Your task to perform on an android device: change your default location settings in chrome Image 0: 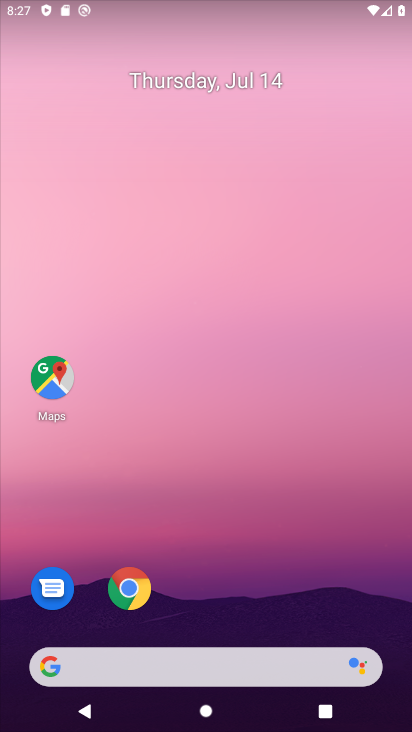
Step 0: click (127, 593)
Your task to perform on an android device: change your default location settings in chrome Image 1: 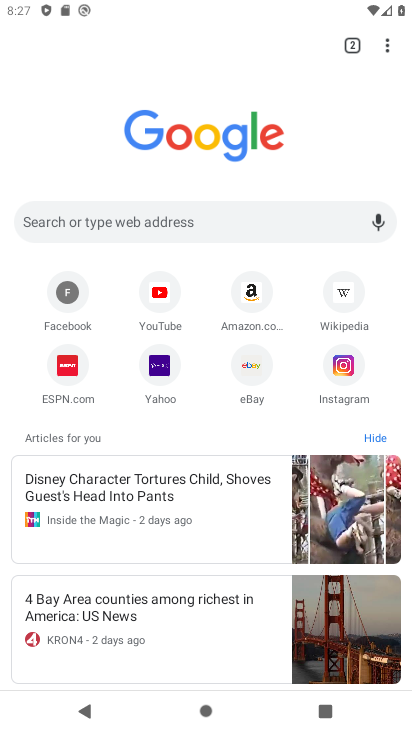
Step 1: click (381, 50)
Your task to perform on an android device: change your default location settings in chrome Image 2: 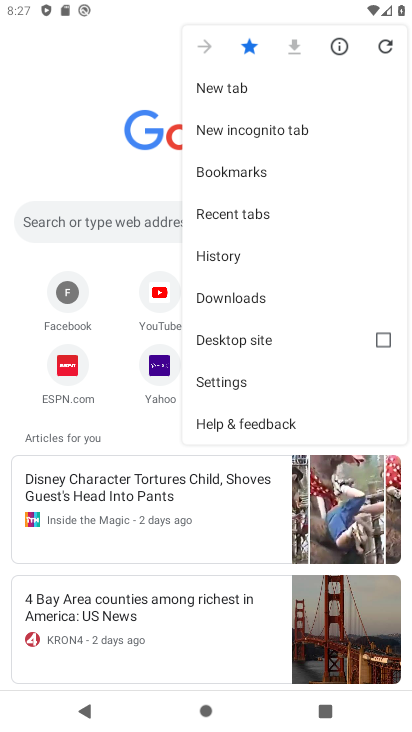
Step 2: click (245, 384)
Your task to perform on an android device: change your default location settings in chrome Image 3: 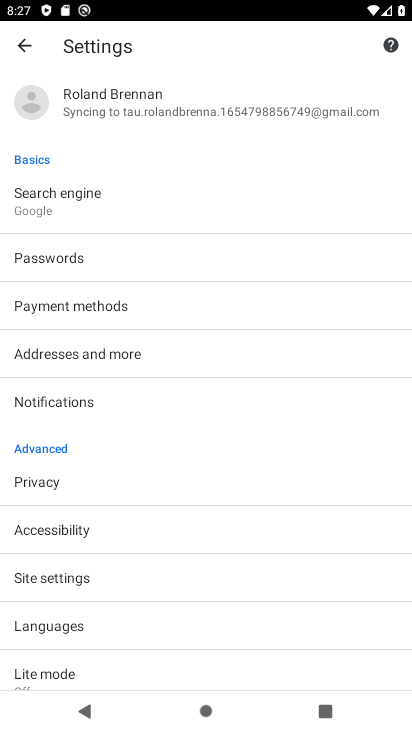
Step 3: click (105, 183)
Your task to perform on an android device: change your default location settings in chrome Image 4: 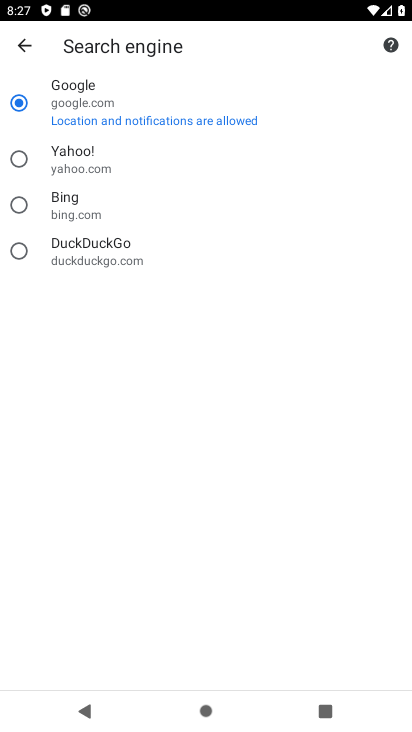
Step 4: click (19, 163)
Your task to perform on an android device: change your default location settings in chrome Image 5: 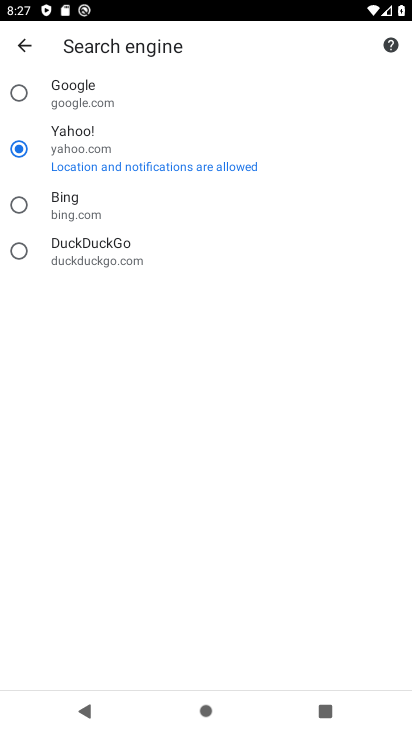
Step 5: task complete